Your task to perform on an android device: refresh tabs in the chrome app Image 0: 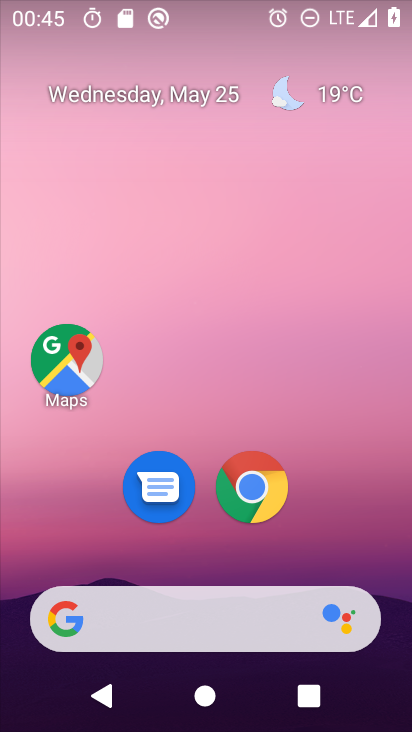
Step 0: click (248, 500)
Your task to perform on an android device: refresh tabs in the chrome app Image 1: 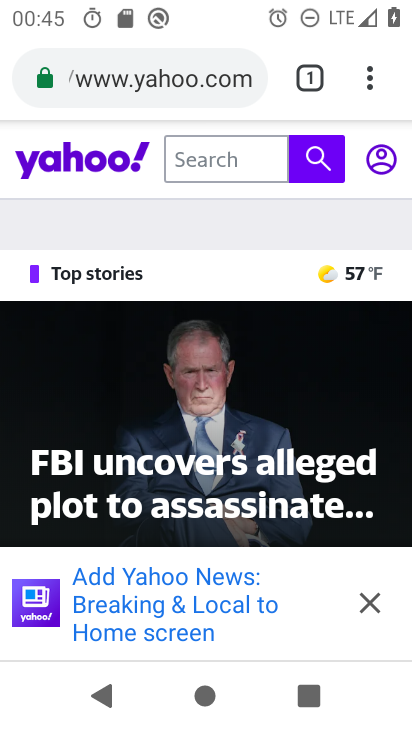
Step 1: click (370, 80)
Your task to perform on an android device: refresh tabs in the chrome app Image 2: 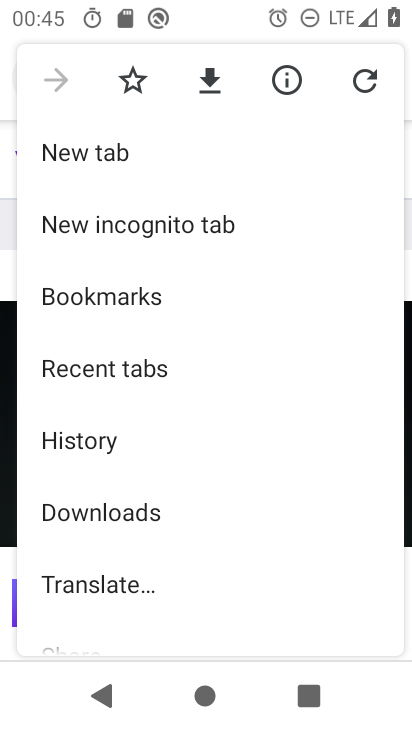
Step 2: click (370, 80)
Your task to perform on an android device: refresh tabs in the chrome app Image 3: 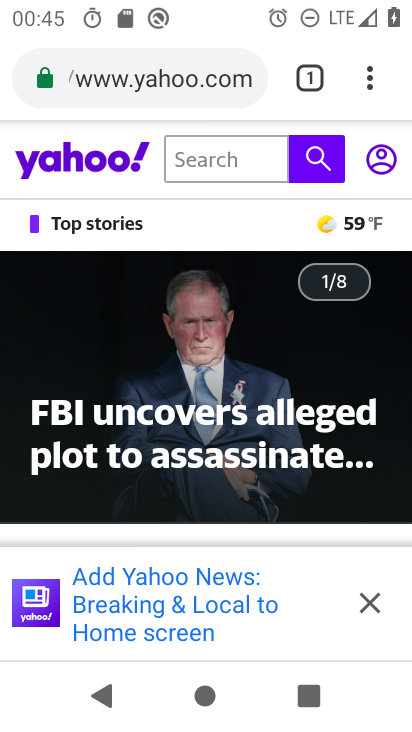
Step 3: task complete